Your task to perform on an android device: toggle improve location accuracy Image 0: 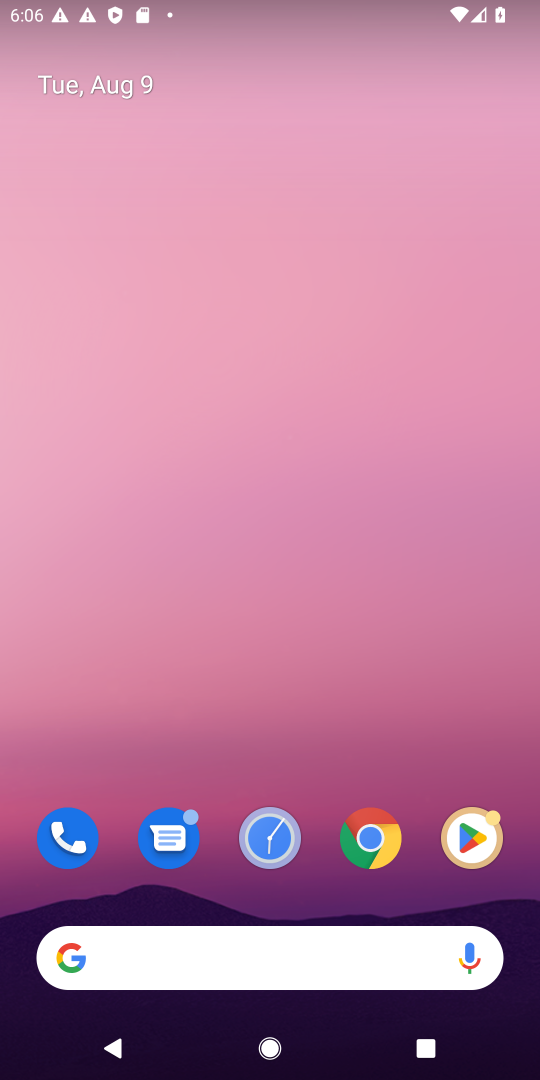
Step 0: drag from (255, 713) to (258, 119)
Your task to perform on an android device: toggle improve location accuracy Image 1: 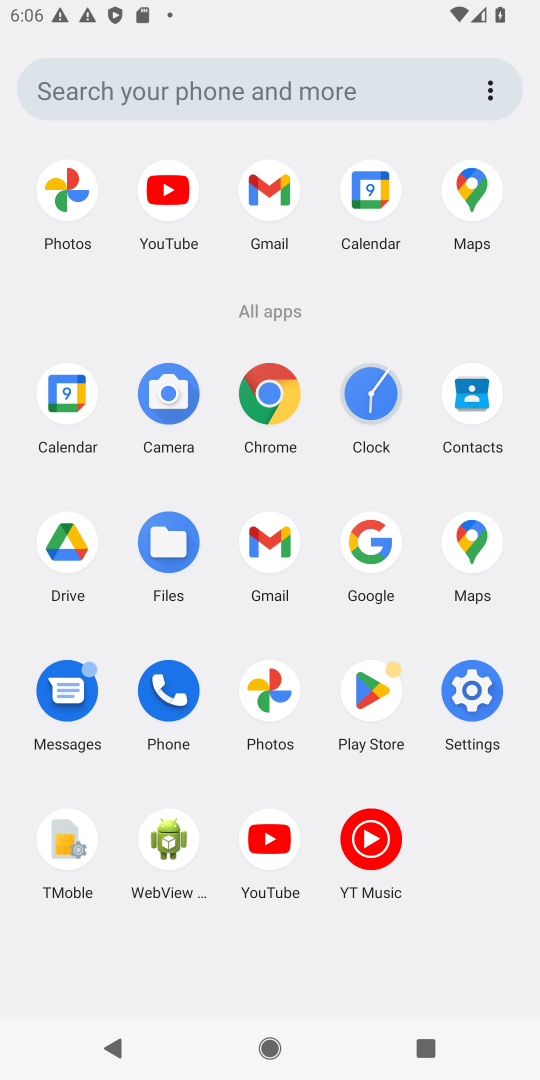
Step 1: click (482, 684)
Your task to perform on an android device: toggle improve location accuracy Image 2: 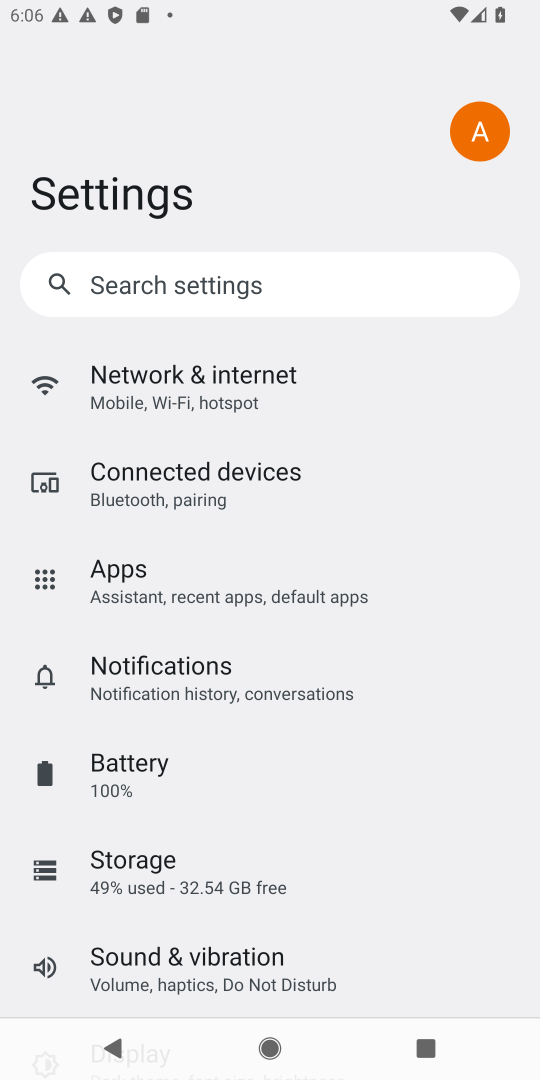
Step 2: drag from (156, 971) to (170, 278)
Your task to perform on an android device: toggle improve location accuracy Image 3: 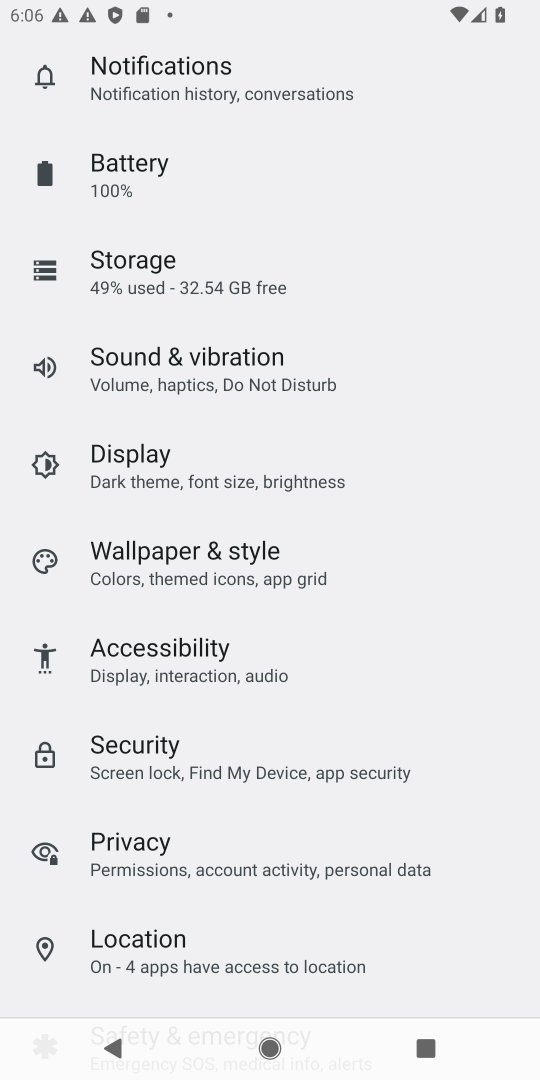
Step 3: drag from (257, 1003) to (281, 349)
Your task to perform on an android device: toggle improve location accuracy Image 4: 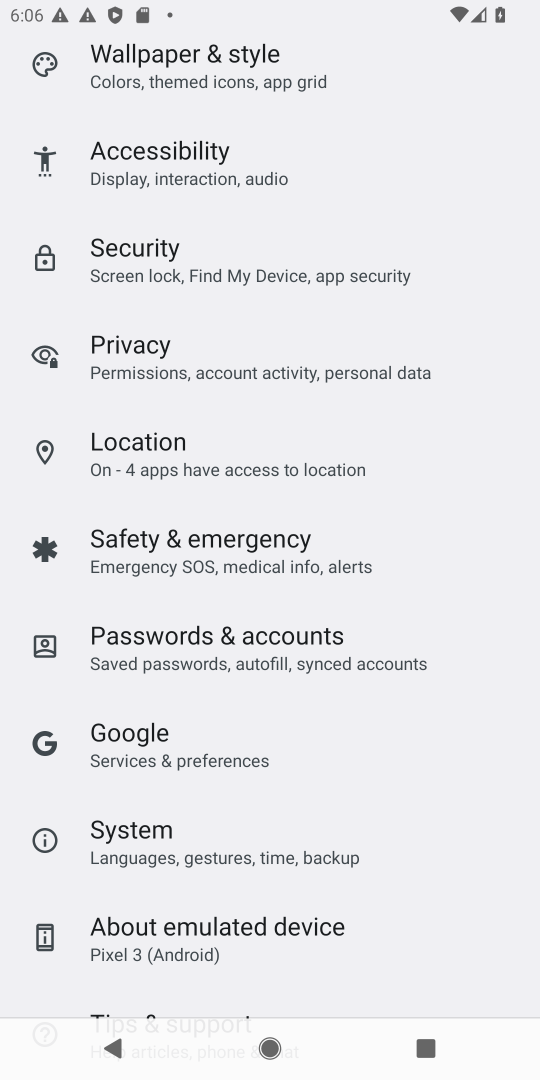
Step 4: click (147, 462)
Your task to perform on an android device: toggle improve location accuracy Image 5: 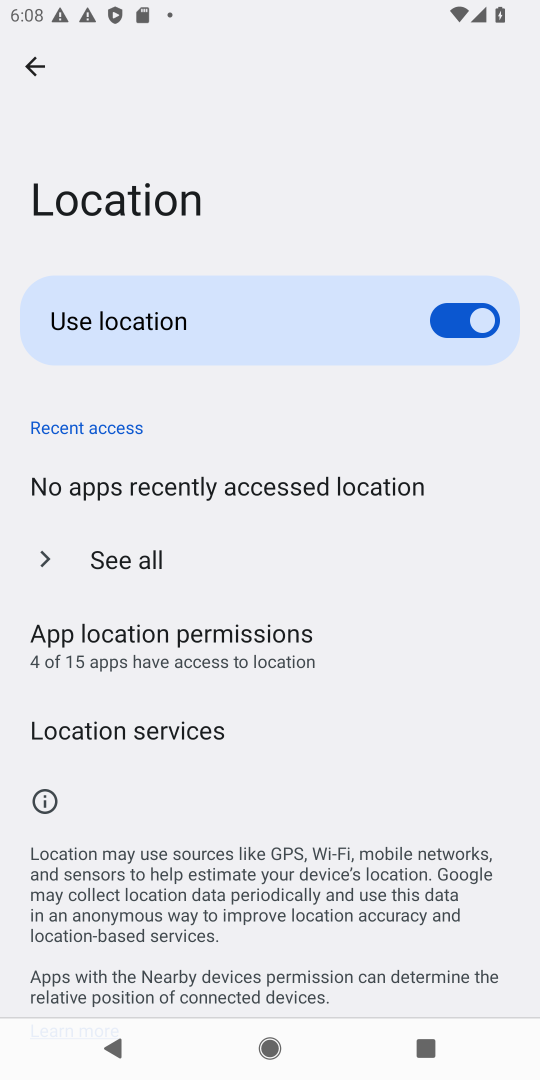
Step 5: click (86, 732)
Your task to perform on an android device: toggle improve location accuracy Image 6: 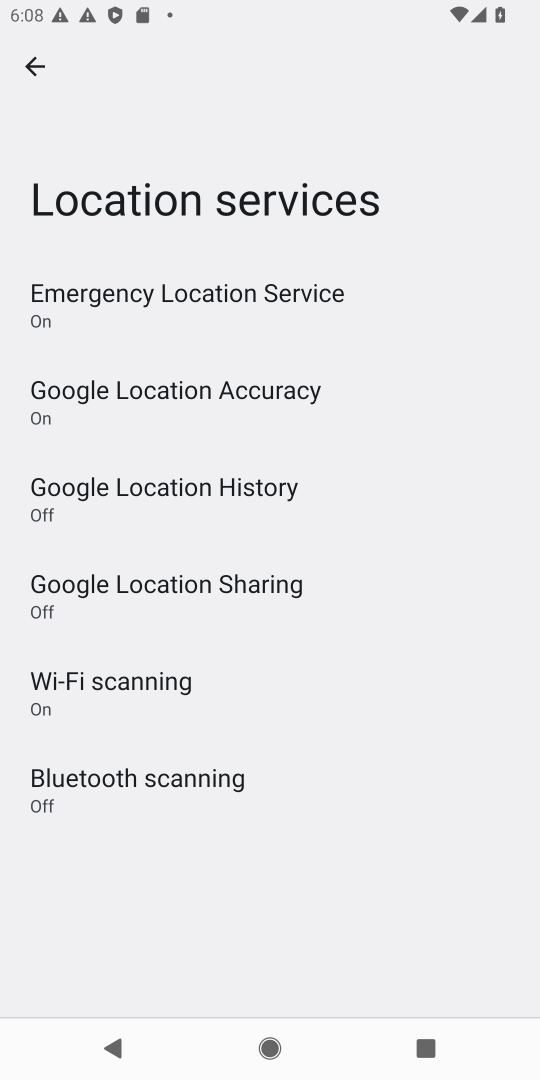
Step 6: click (155, 398)
Your task to perform on an android device: toggle improve location accuracy Image 7: 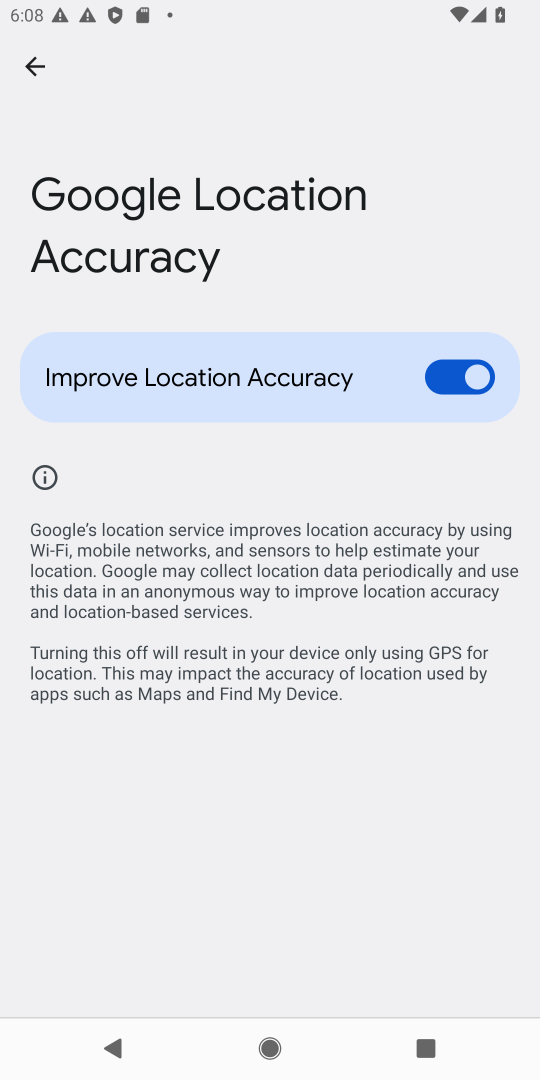
Step 7: click (440, 386)
Your task to perform on an android device: toggle improve location accuracy Image 8: 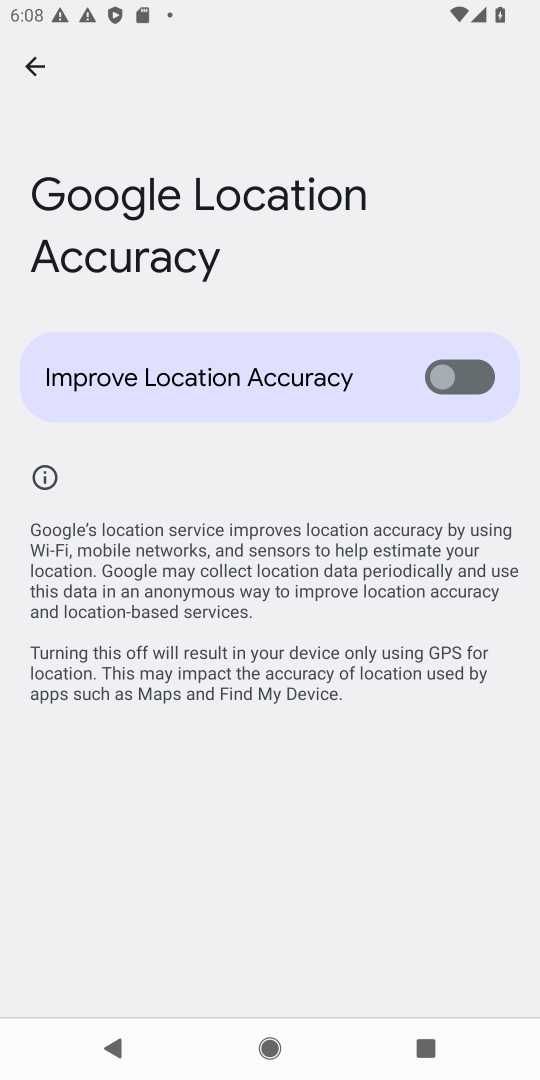
Step 8: task complete